Your task to perform on an android device: toggle airplane mode Image 0: 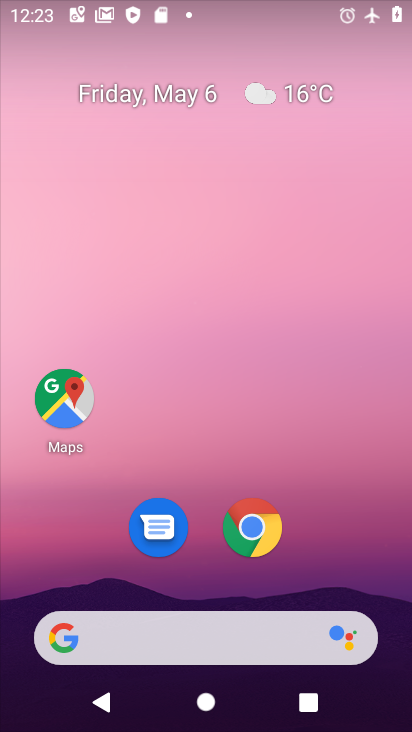
Step 0: drag from (293, 466) to (100, 153)
Your task to perform on an android device: toggle airplane mode Image 1: 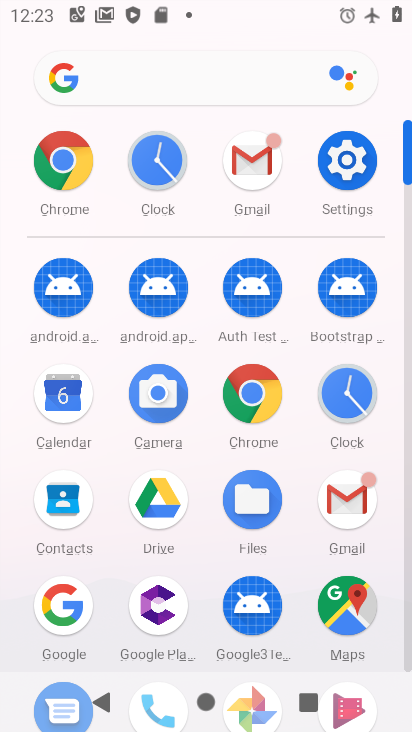
Step 1: click (359, 165)
Your task to perform on an android device: toggle airplane mode Image 2: 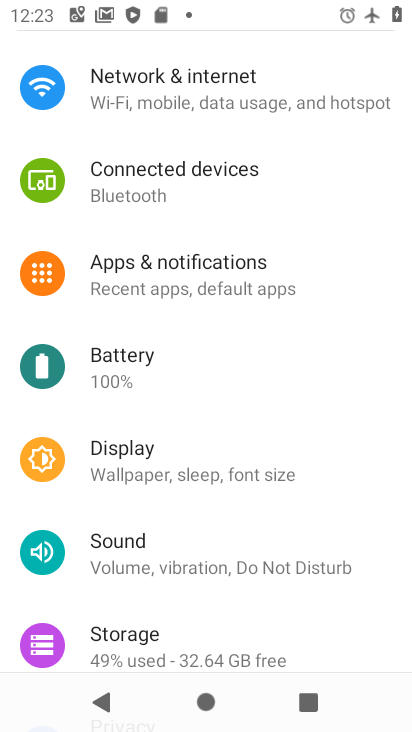
Step 2: click (189, 107)
Your task to perform on an android device: toggle airplane mode Image 3: 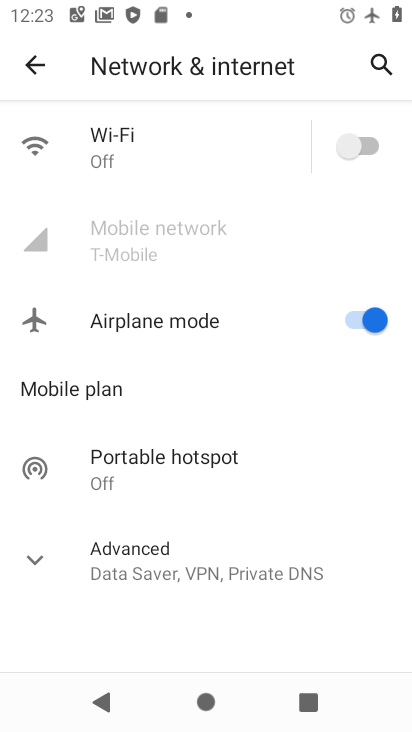
Step 3: click (370, 318)
Your task to perform on an android device: toggle airplane mode Image 4: 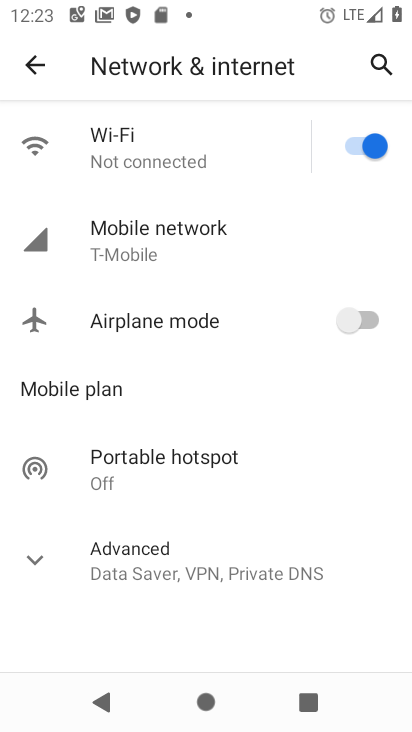
Step 4: task complete